Your task to perform on an android device: turn off data saver in the chrome app Image 0: 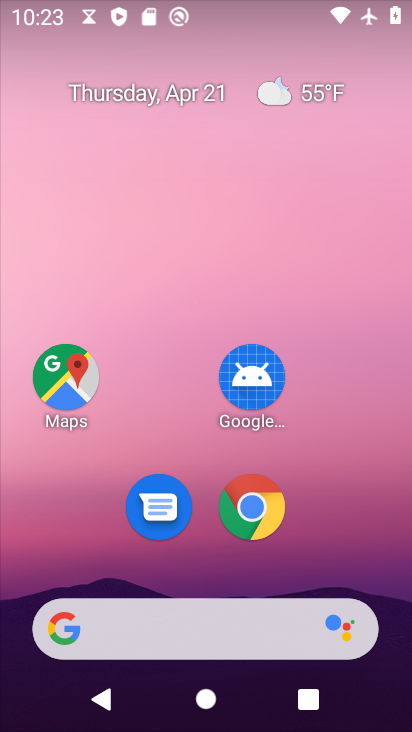
Step 0: drag from (288, 556) to (314, 188)
Your task to perform on an android device: turn off data saver in the chrome app Image 1: 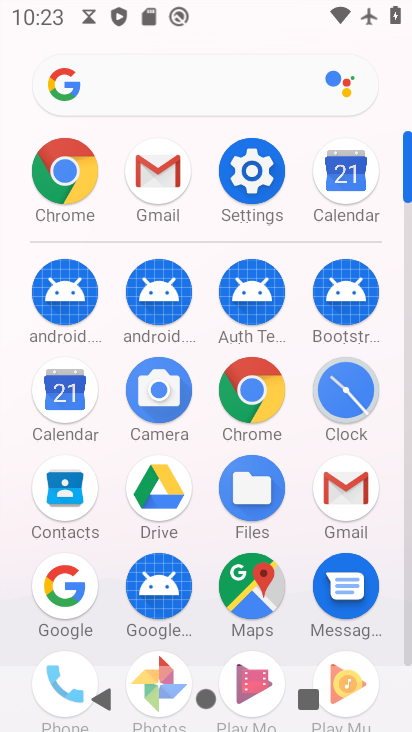
Step 1: click (72, 172)
Your task to perform on an android device: turn off data saver in the chrome app Image 2: 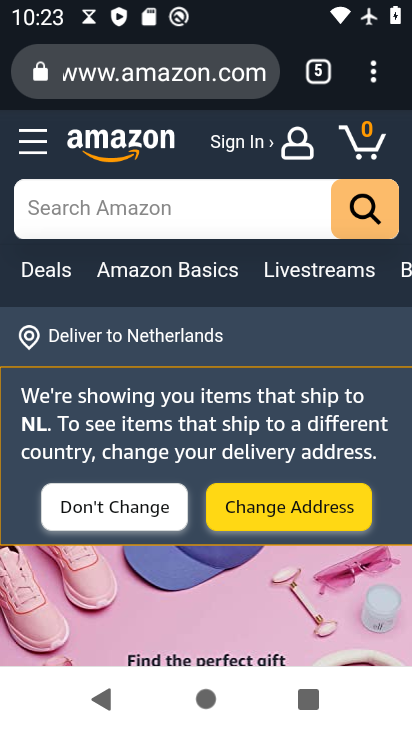
Step 2: click (369, 62)
Your task to perform on an android device: turn off data saver in the chrome app Image 3: 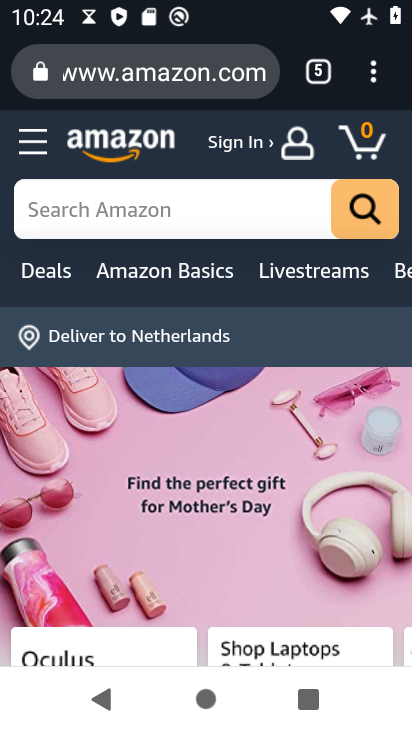
Step 3: click (365, 76)
Your task to perform on an android device: turn off data saver in the chrome app Image 4: 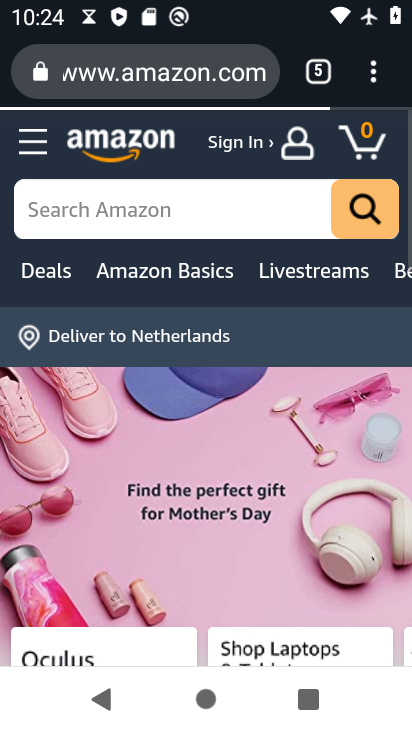
Step 4: click (365, 76)
Your task to perform on an android device: turn off data saver in the chrome app Image 5: 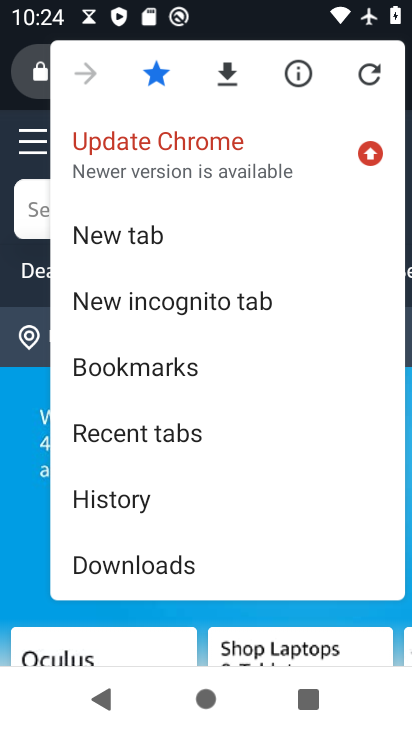
Step 5: drag from (151, 543) to (190, 128)
Your task to perform on an android device: turn off data saver in the chrome app Image 6: 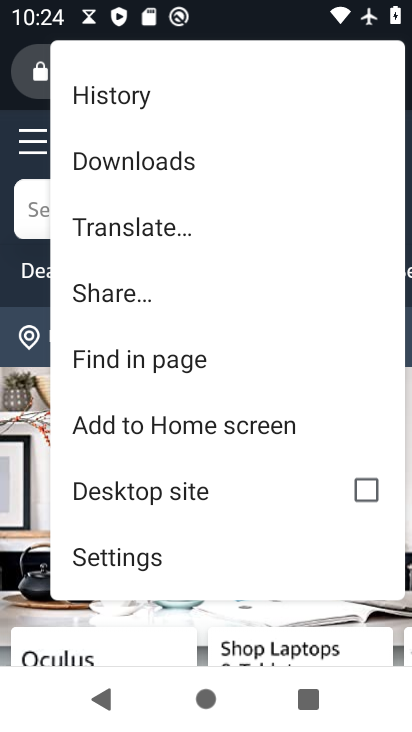
Step 6: drag from (138, 512) to (173, 207)
Your task to perform on an android device: turn off data saver in the chrome app Image 7: 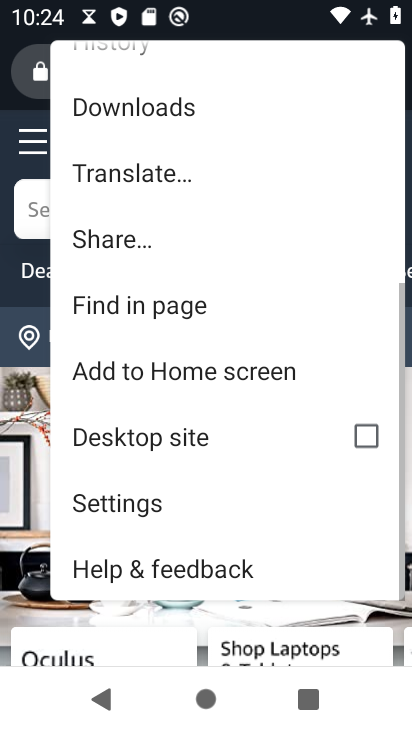
Step 7: click (138, 500)
Your task to perform on an android device: turn off data saver in the chrome app Image 8: 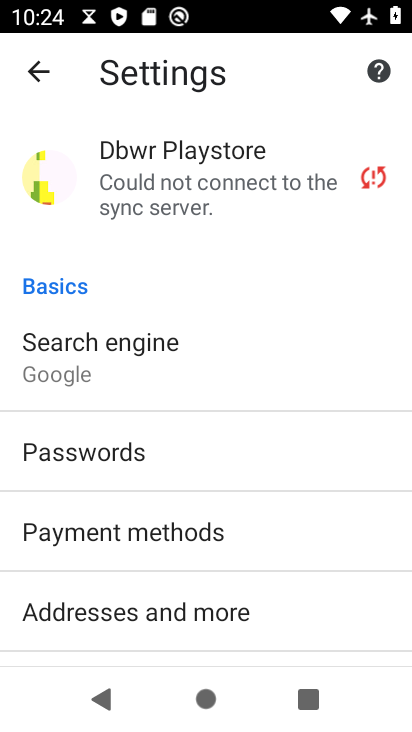
Step 8: drag from (159, 590) to (267, 76)
Your task to perform on an android device: turn off data saver in the chrome app Image 9: 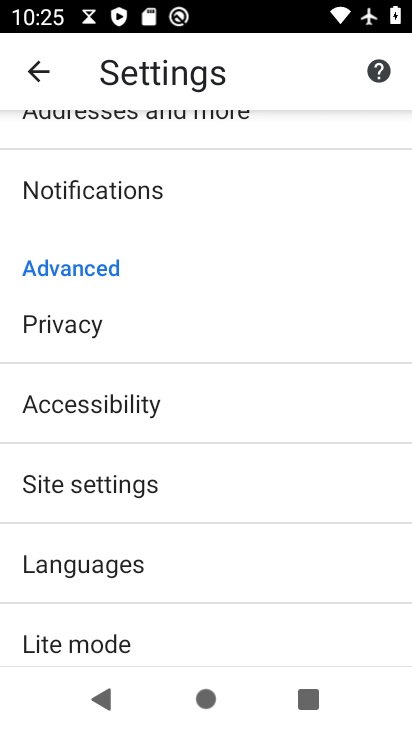
Step 9: drag from (195, 550) to (214, 384)
Your task to perform on an android device: turn off data saver in the chrome app Image 10: 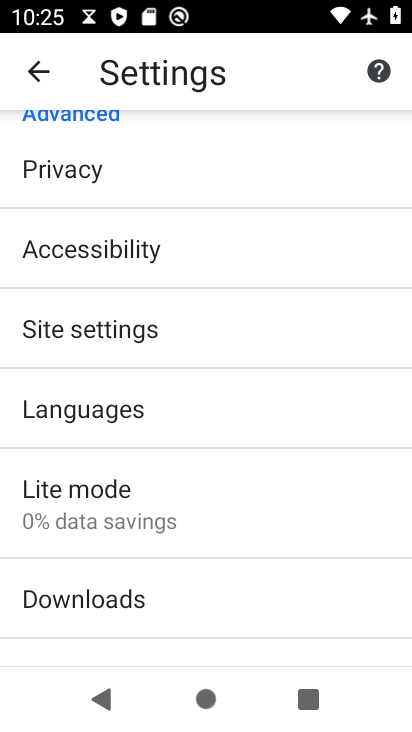
Step 10: click (174, 505)
Your task to perform on an android device: turn off data saver in the chrome app Image 11: 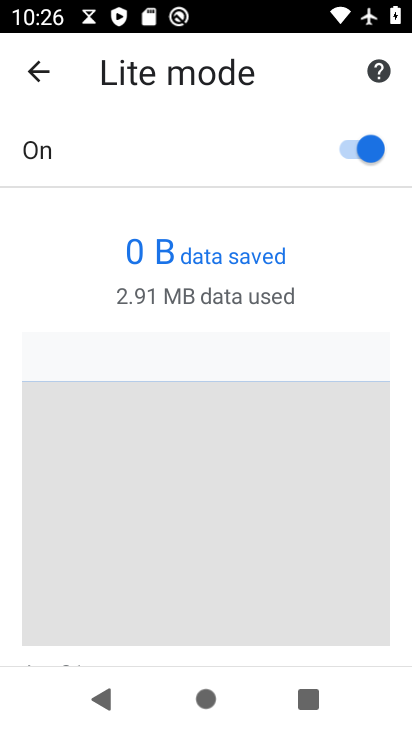
Step 11: click (352, 142)
Your task to perform on an android device: turn off data saver in the chrome app Image 12: 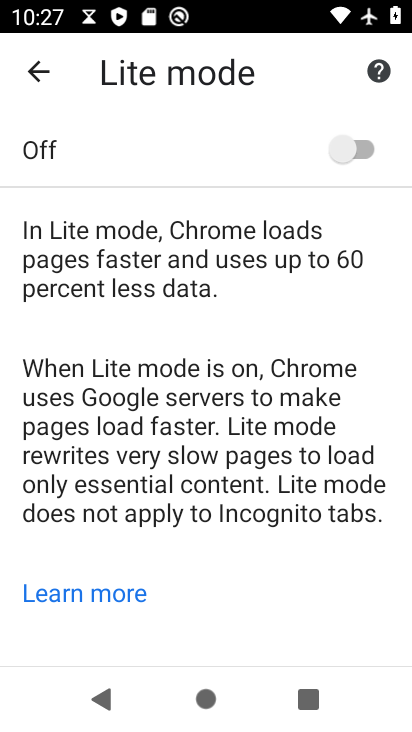
Step 12: task complete